Your task to perform on an android device: allow cookies in the chrome app Image 0: 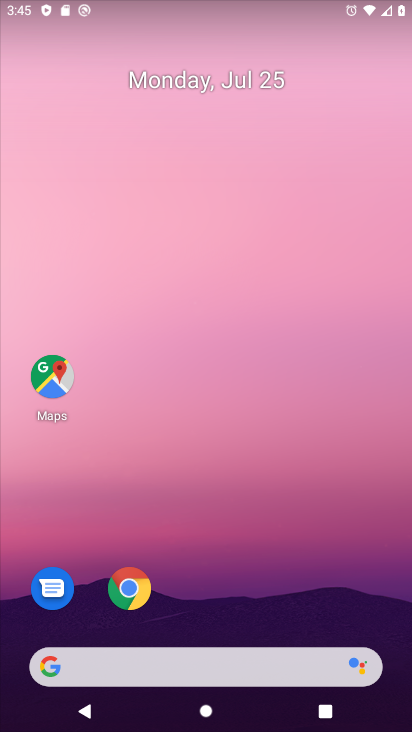
Step 0: drag from (240, 723) to (240, 50)
Your task to perform on an android device: allow cookies in the chrome app Image 1: 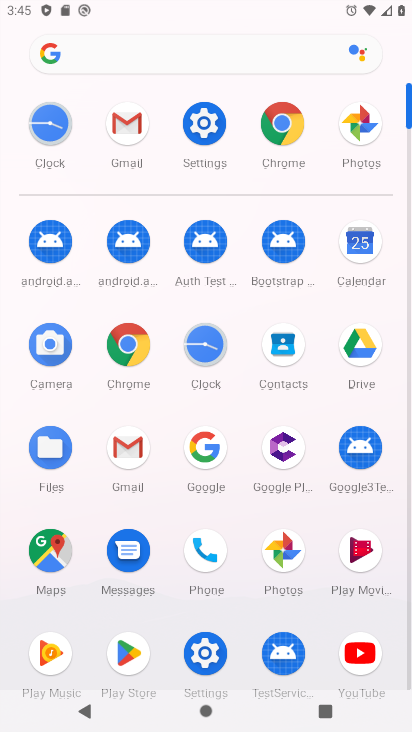
Step 1: click (123, 342)
Your task to perform on an android device: allow cookies in the chrome app Image 2: 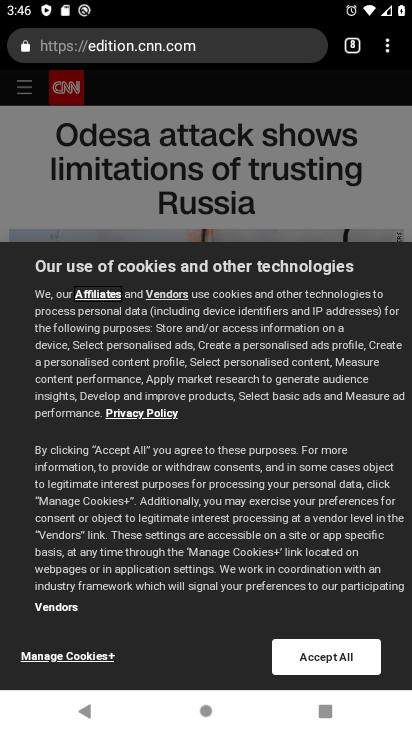
Step 2: click (388, 53)
Your task to perform on an android device: allow cookies in the chrome app Image 3: 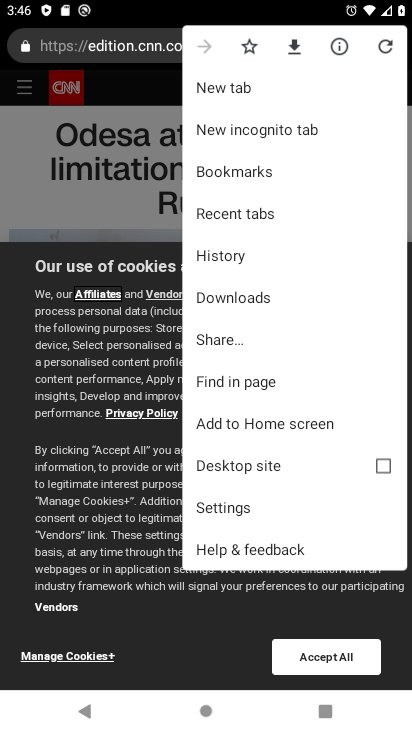
Step 3: click (224, 508)
Your task to perform on an android device: allow cookies in the chrome app Image 4: 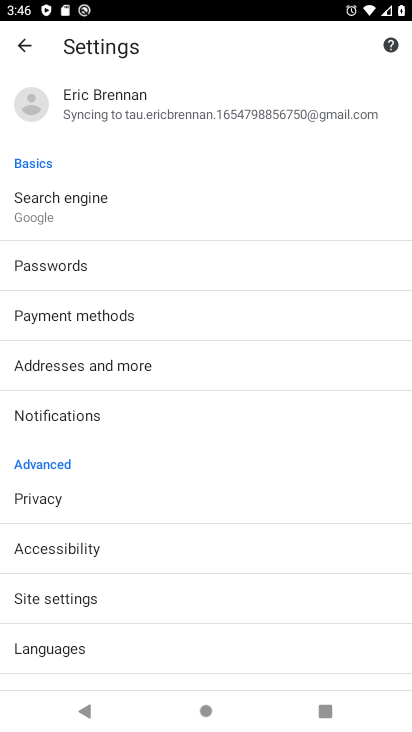
Step 4: click (62, 595)
Your task to perform on an android device: allow cookies in the chrome app Image 5: 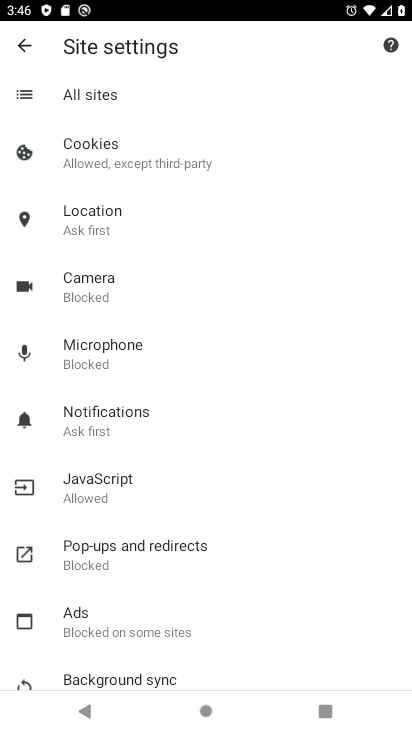
Step 5: click (85, 145)
Your task to perform on an android device: allow cookies in the chrome app Image 6: 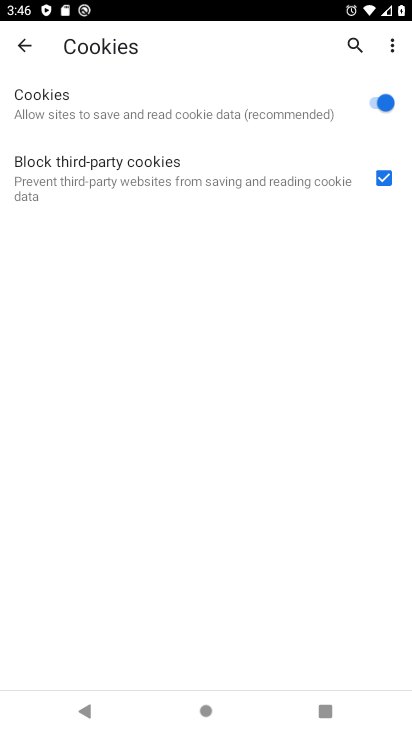
Step 6: task complete